Your task to perform on an android device: Search for Mexican restaurants on Maps Image 0: 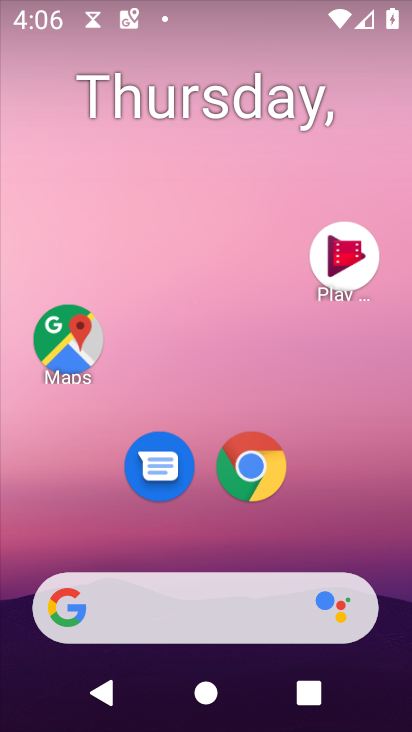
Step 0: task complete